Your task to perform on an android device: stop showing notifications on the lock screen Image 0: 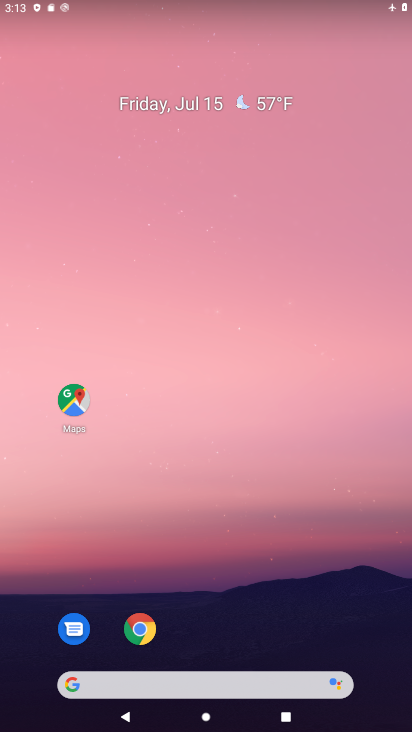
Step 0: click (129, 229)
Your task to perform on an android device: stop showing notifications on the lock screen Image 1: 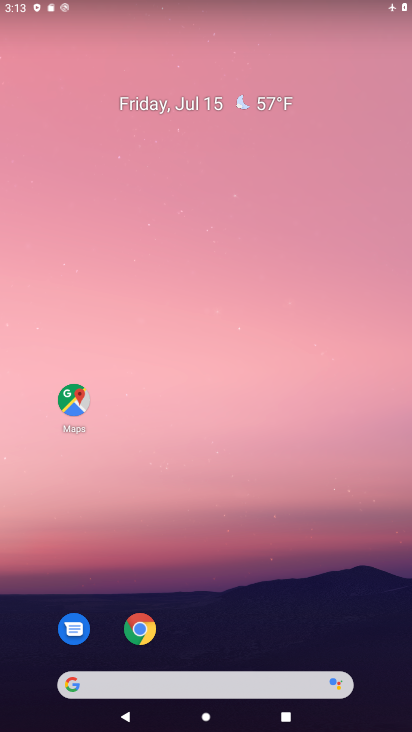
Step 1: drag from (150, 492) to (138, 131)
Your task to perform on an android device: stop showing notifications on the lock screen Image 2: 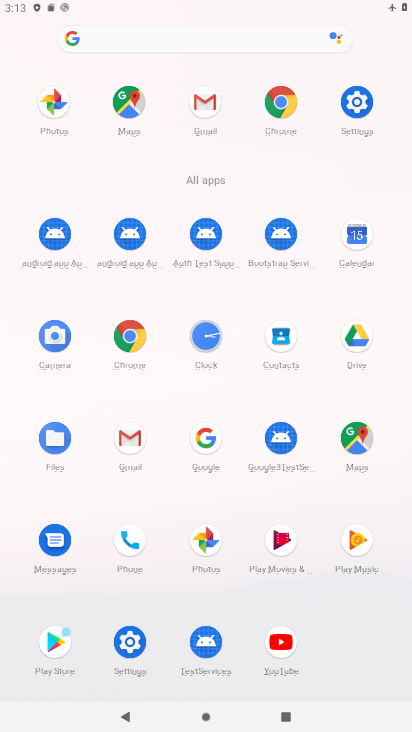
Step 2: click (357, 105)
Your task to perform on an android device: stop showing notifications on the lock screen Image 3: 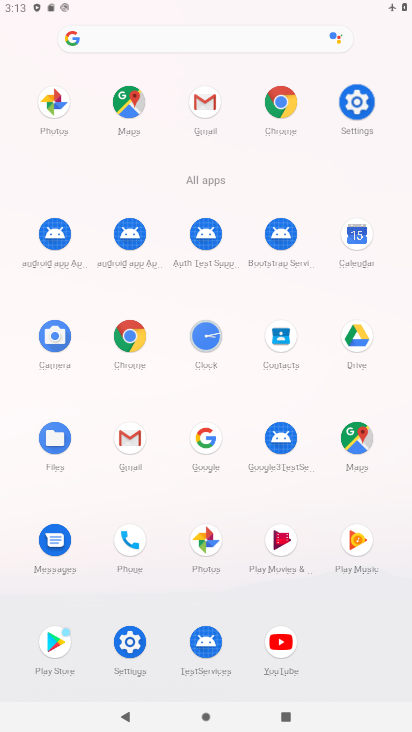
Step 3: click (366, 102)
Your task to perform on an android device: stop showing notifications on the lock screen Image 4: 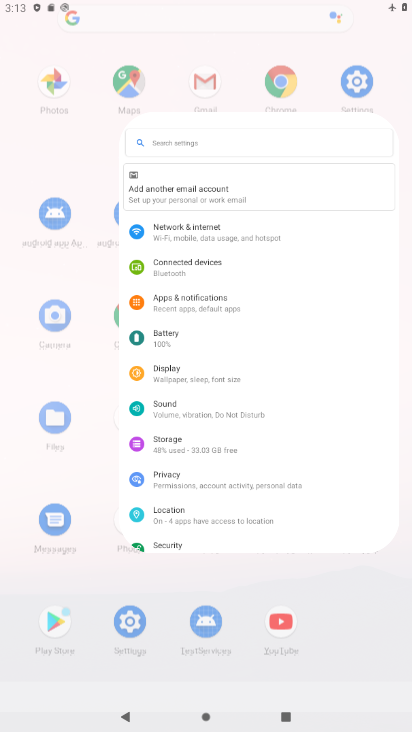
Step 4: click (366, 102)
Your task to perform on an android device: stop showing notifications on the lock screen Image 5: 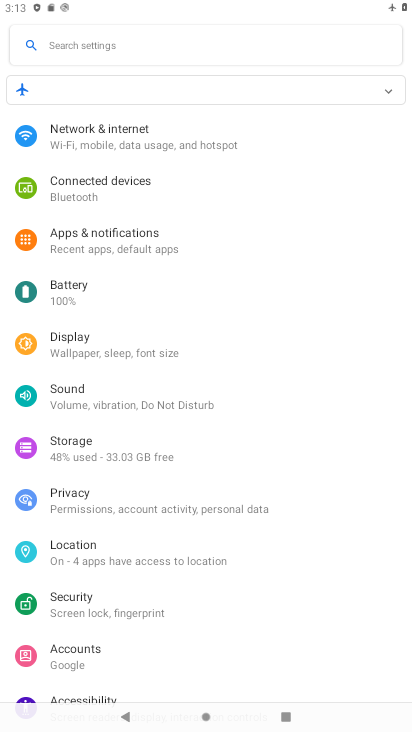
Step 5: click (117, 236)
Your task to perform on an android device: stop showing notifications on the lock screen Image 6: 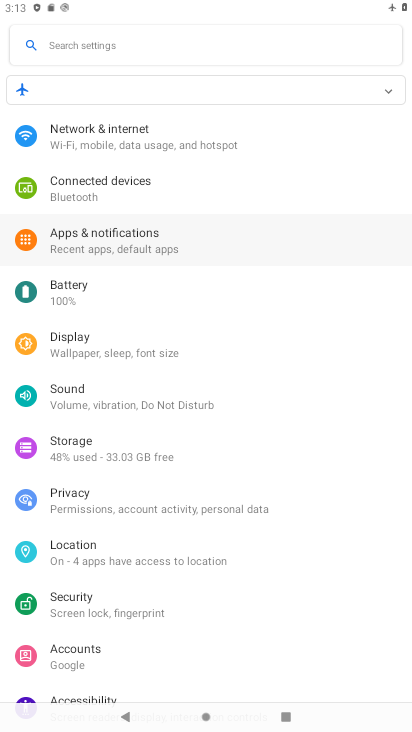
Step 6: click (117, 236)
Your task to perform on an android device: stop showing notifications on the lock screen Image 7: 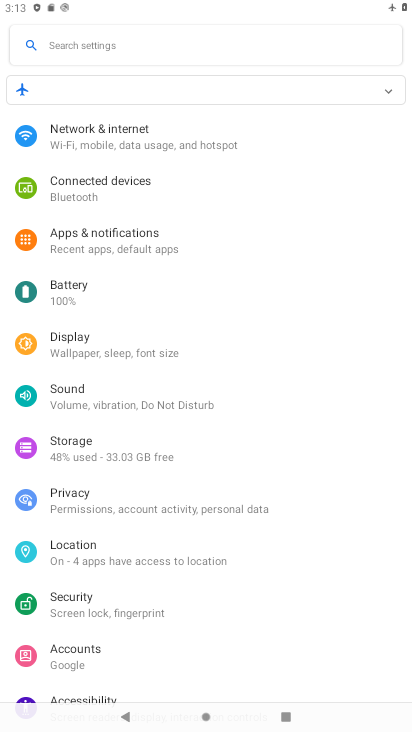
Step 7: click (117, 236)
Your task to perform on an android device: stop showing notifications on the lock screen Image 8: 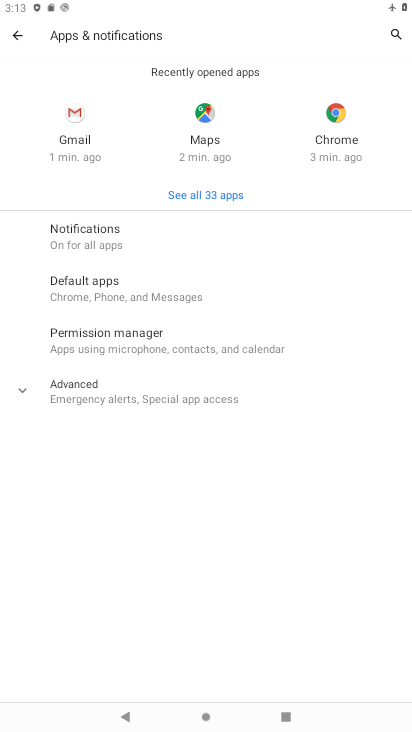
Step 8: click (106, 241)
Your task to perform on an android device: stop showing notifications on the lock screen Image 9: 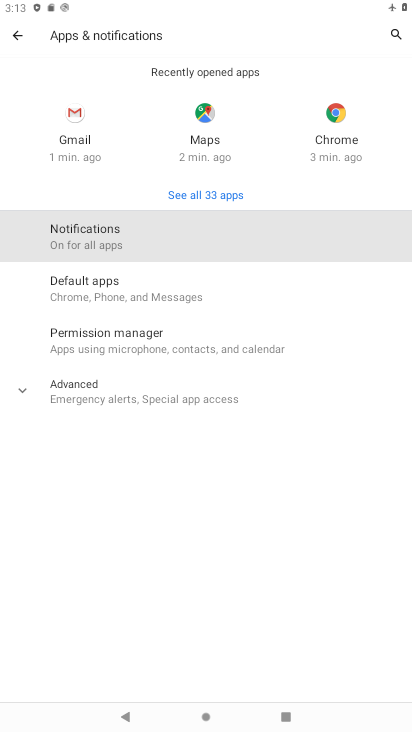
Step 9: click (105, 241)
Your task to perform on an android device: stop showing notifications on the lock screen Image 10: 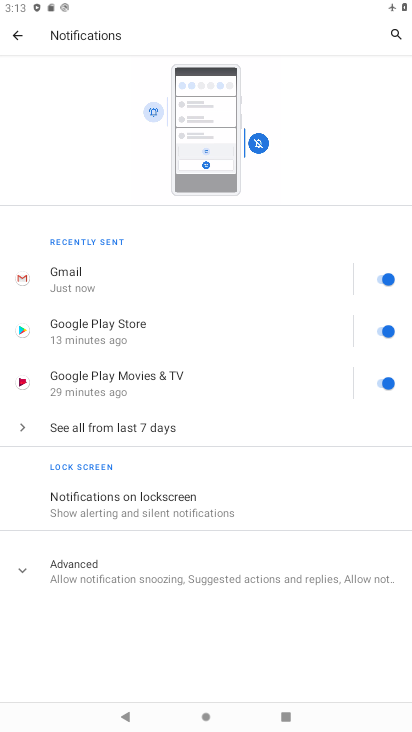
Step 10: click (179, 484)
Your task to perform on an android device: stop showing notifications on the lock screen Image 11: 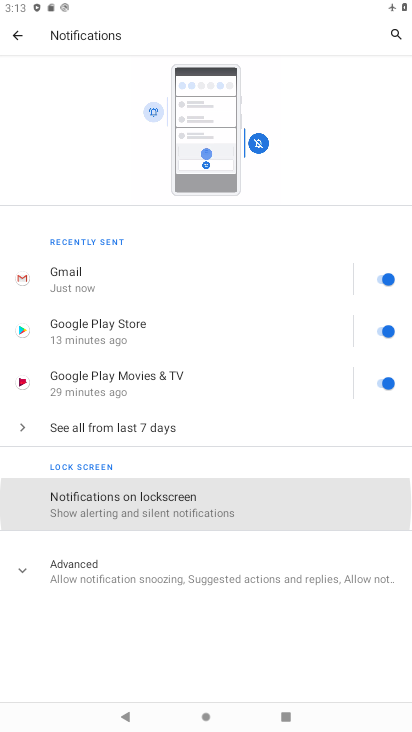
Step 11: click (179, 483)
Your task to perform on an android device: stop showing notifications on the lock screen Image 12: 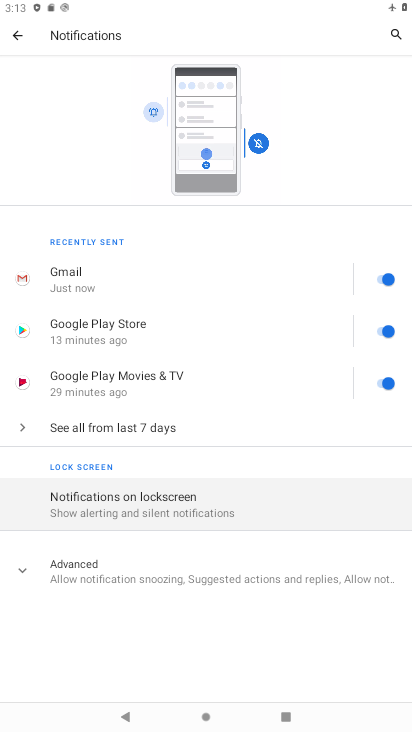
Step 12: click (179, 483)
Your task to perform on an android device: stop showing notifications on the lock screen Image 13: 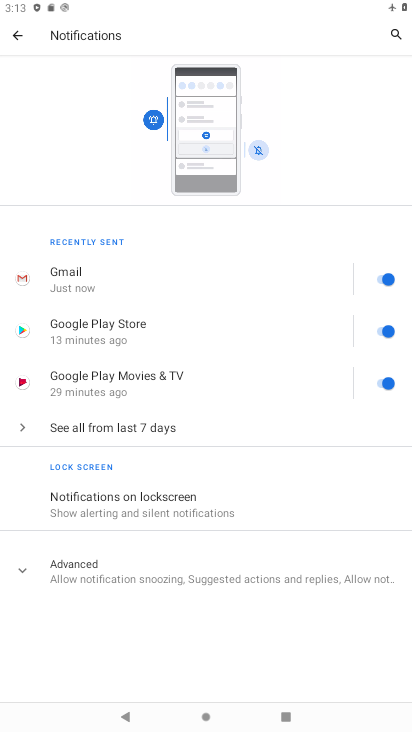
Step 13: task complete